Your task to perform on an android device: Check the news Image 0: 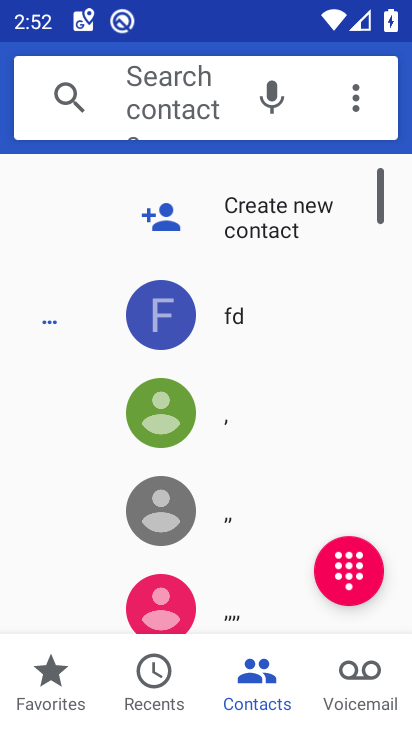
Step 0: press home button
Your task to perform on an android device: Check the news Image 1: 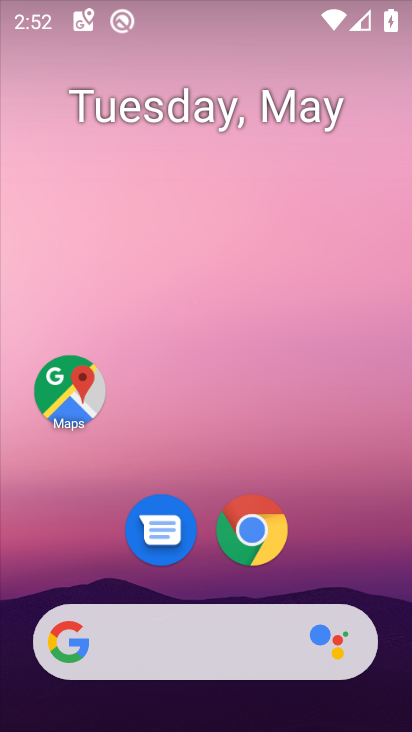
Step 1: click (199, 632)
Your task to perform on an android device: Check the news Image 2: 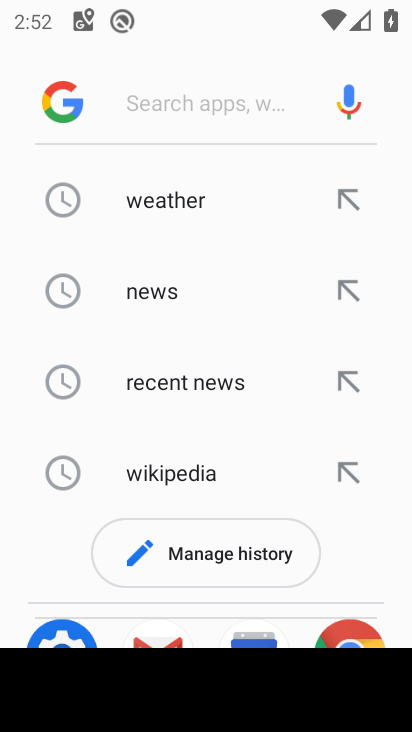
Step 2: click (139, 294)
Your task to perform on an android device: Check the news Image 3: 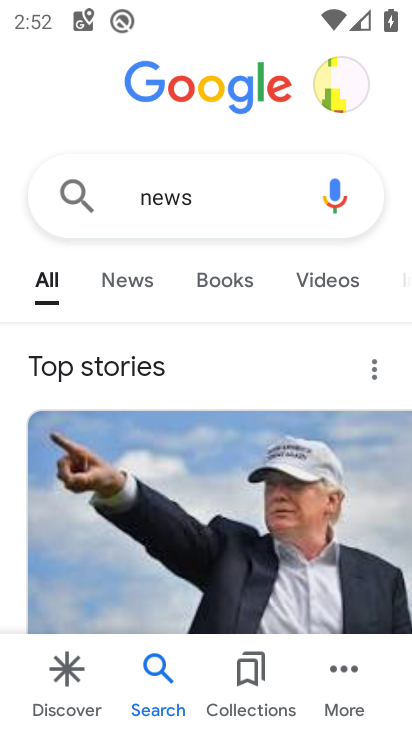
Step 3: task complete